Your task to perform on an android device: turn on notifications settings in the gmail app Image 0: 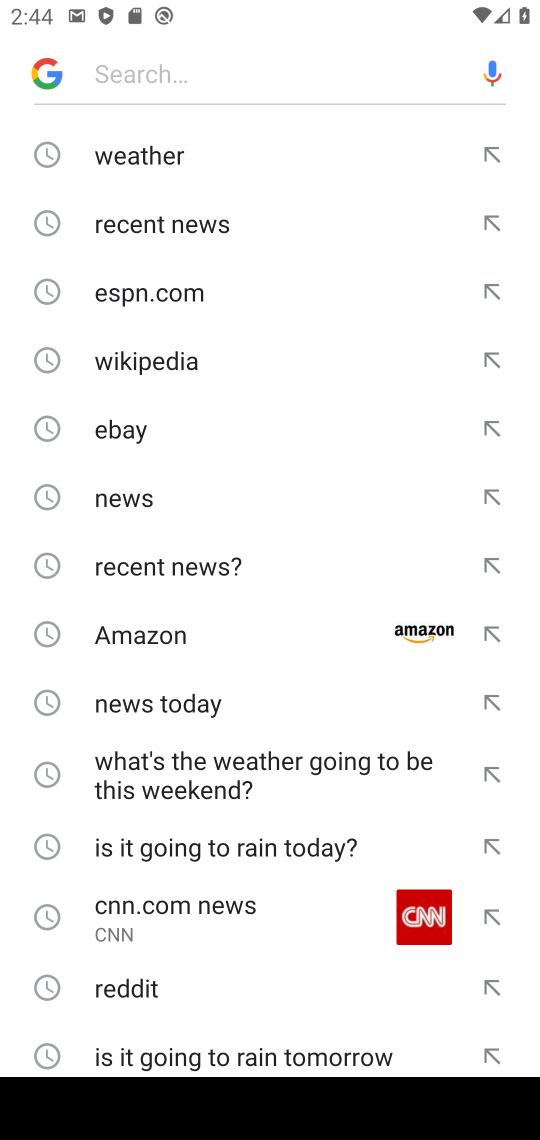
Step 0: press home button
Your task to perform on an android device: turn on notifications settings in the gmail app Image 1: 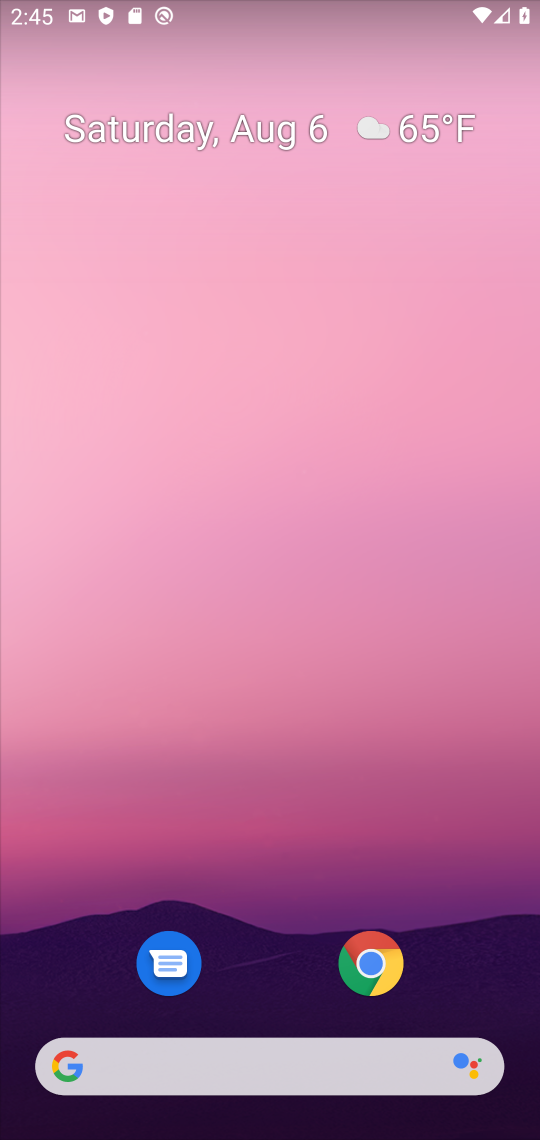
Step 1: drag from (459, 908) to (374, 316)
Your task to perform on an android device: turn on notifications settings in the gmail app Image 2: 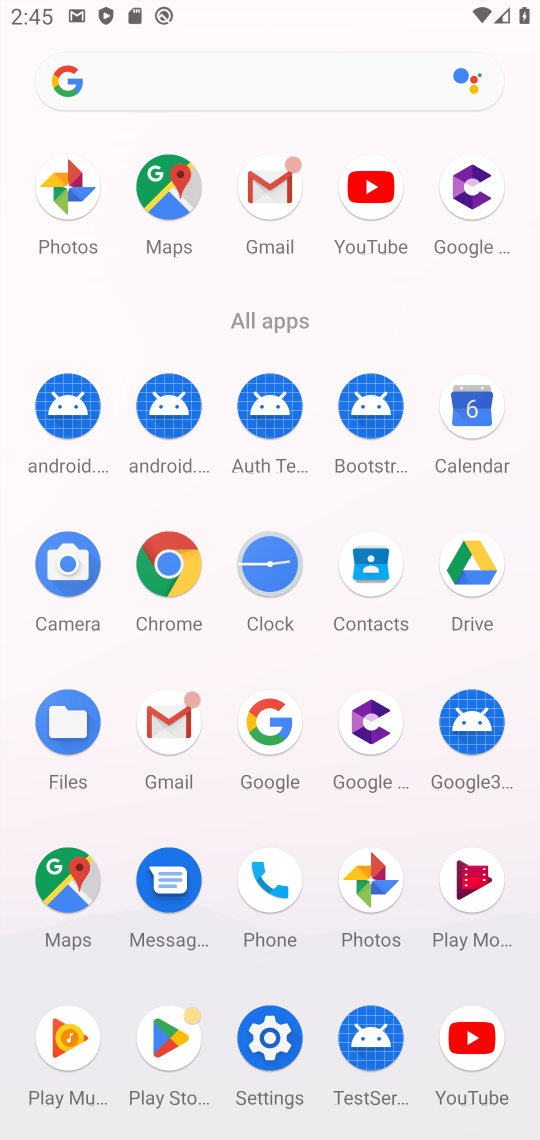
Step 2: click (172, 714)
Your task to perform on an android device: turn on notifications settings in the gmail app Image 3: 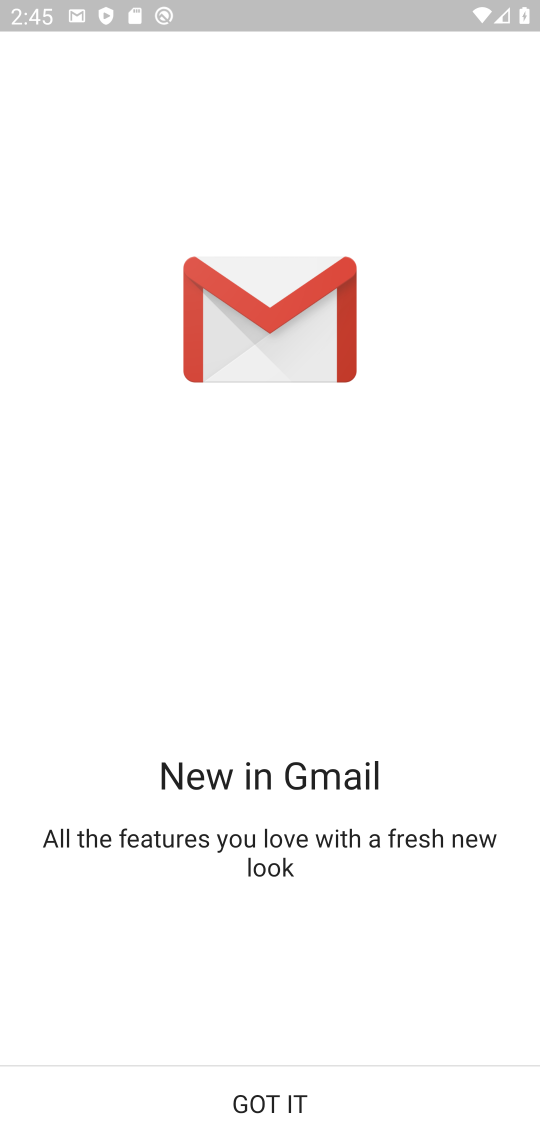
Step 3: click (311, 1105)
Your task to perform on an android device: turn on notifications settings in the gmail app Image 4: 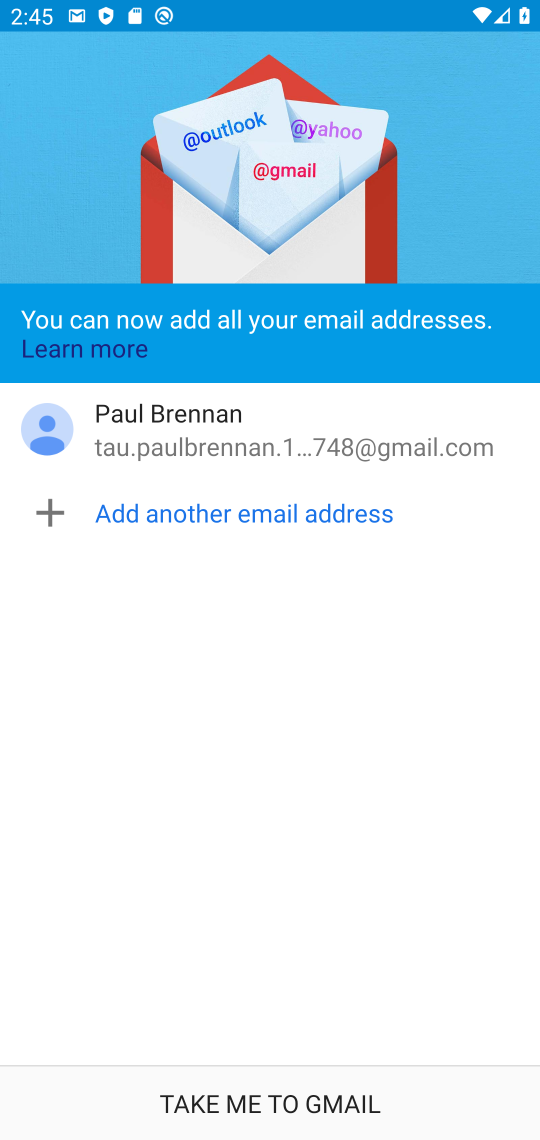
Step 4: click (302, 1102)
Your task to perform on an android device: turn on notifications settings in the gmail app Image 5: 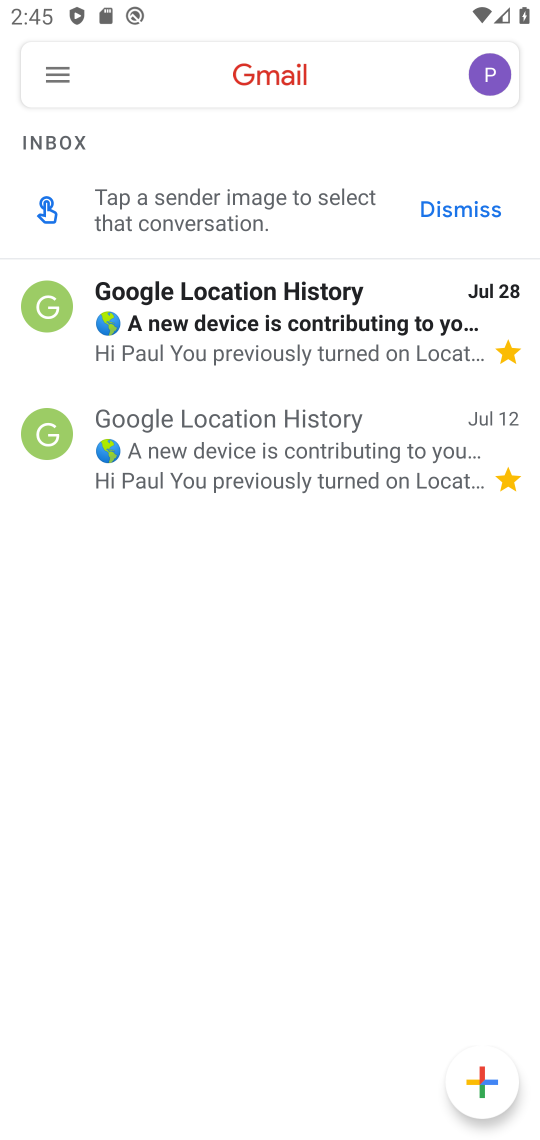
Step 5: click (57, 83)
Your task to perform on an android device: turn on notifications settings in the gmail app Image 6: 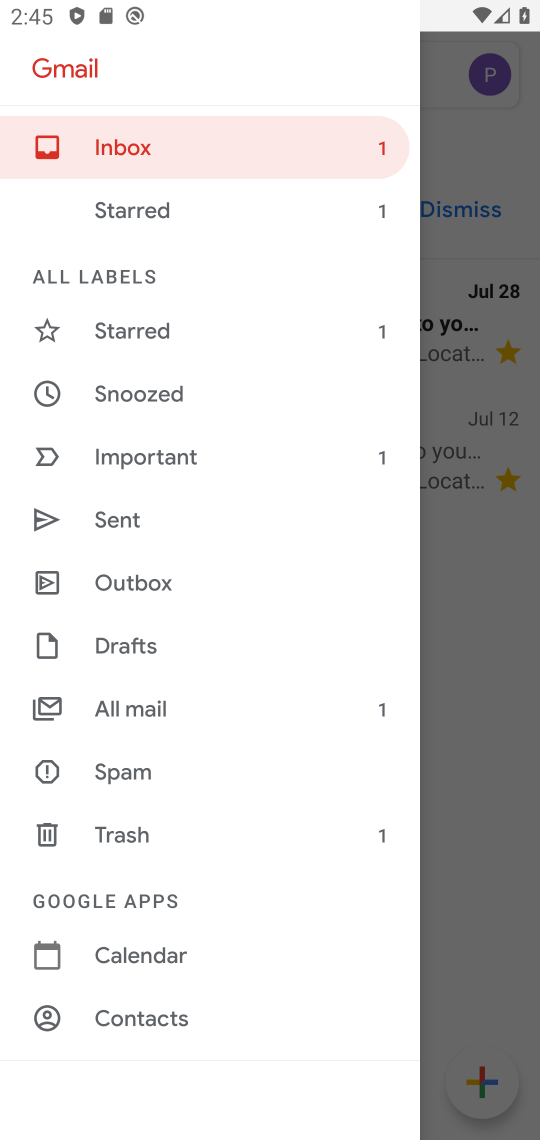
Step 6: drag from (199, 959) to (129, 528)
Your task to perform on an android device: turn on notifications settings in the gmail app Image 7: 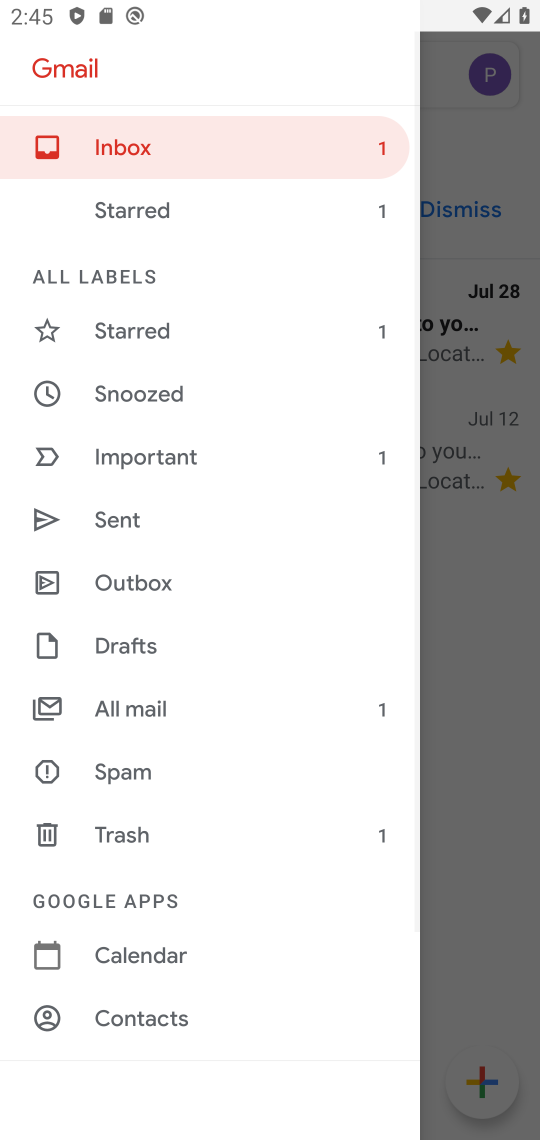
Step 7: drag from (206, 845) to (180, 412)
Your task to perform on an android device: turn on notifications settings in the gmail app Image 8: 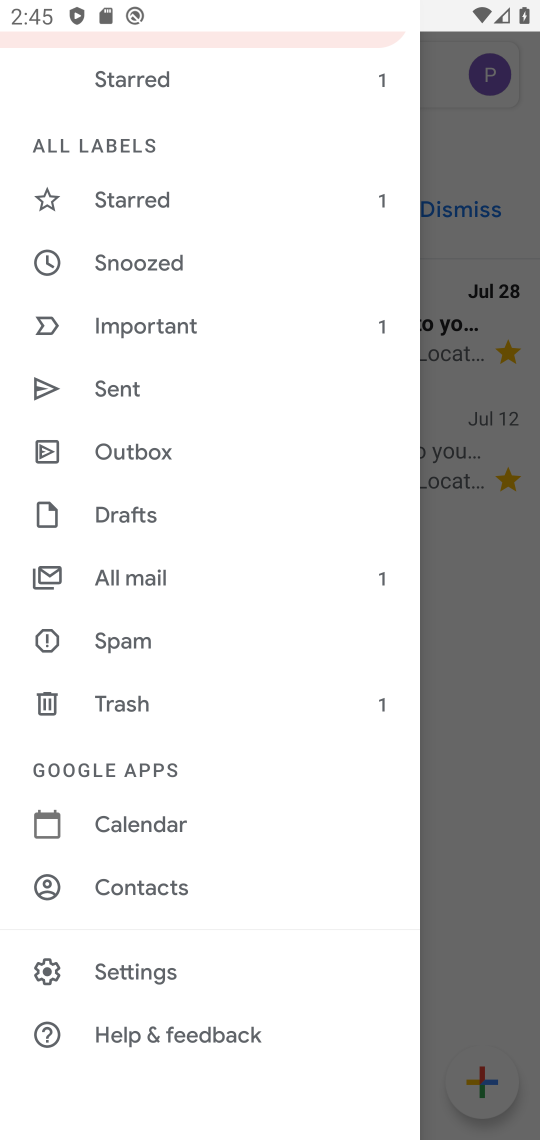
Step 8: click (175, 966)
Your task to perform on an android device: turn on notifications settings in the gmail app Image 9: 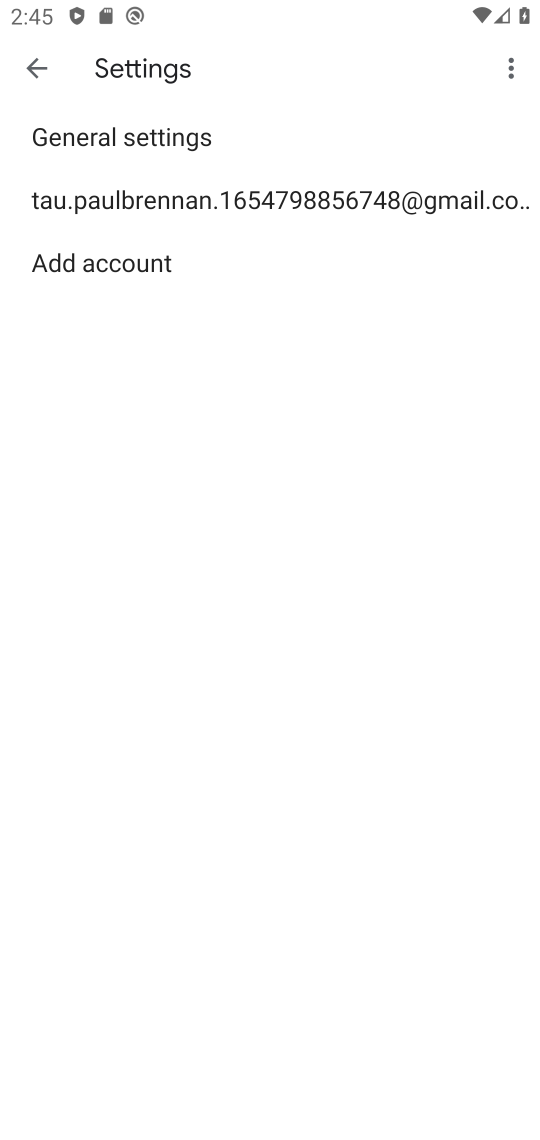
Step 9: click (178, 195)
Your task to perform on an android device: turn on notifications settings in the gmail app Image 10: 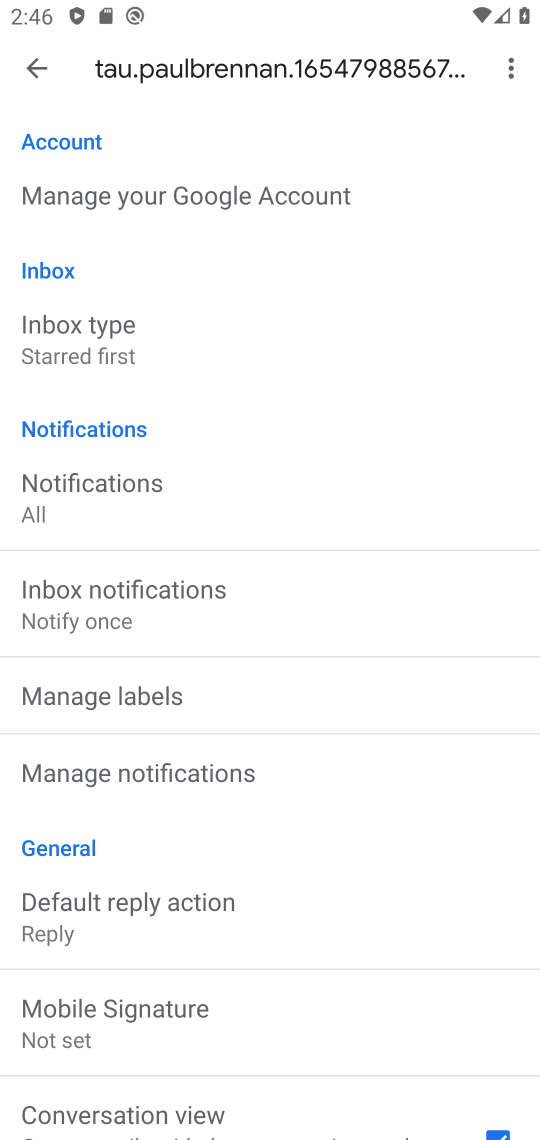
Step 10: click (247, 764)
Your task to perform on an android device: turn on notifications settings in the gmail app Image 11: 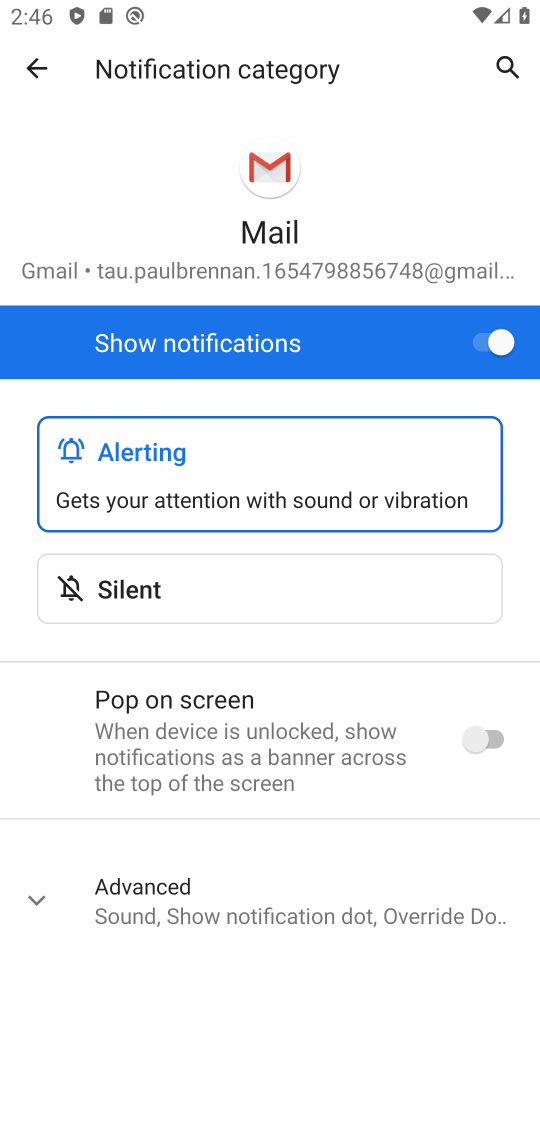
Step 11: task complete